Your task to perform on an android device: Open Amazon Image 0: 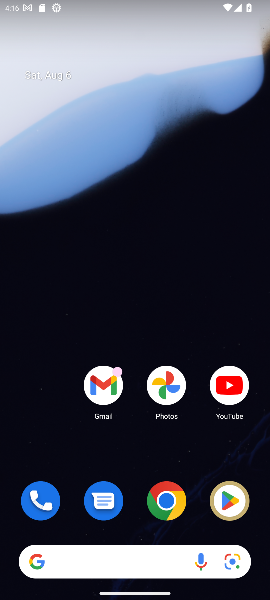
Step 0: click (164, 507)
Your task to perform on an android device: Open Amazon Image 1: 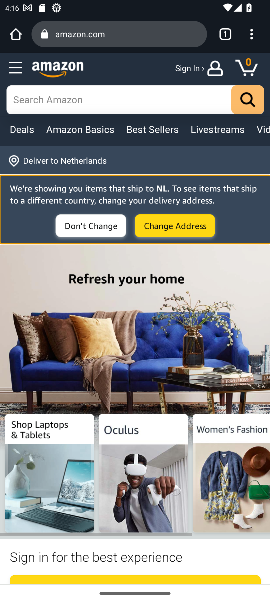
Step 1: task complete